Your task to perform on an android device: toggle pop-ups in chrome Image 0: 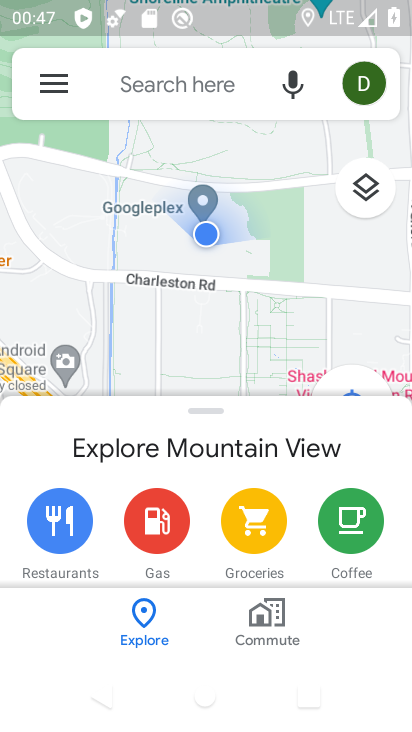
Step 0: press home button
Your task to perform on an android device: toggle pop-ups in chrome Image 1: 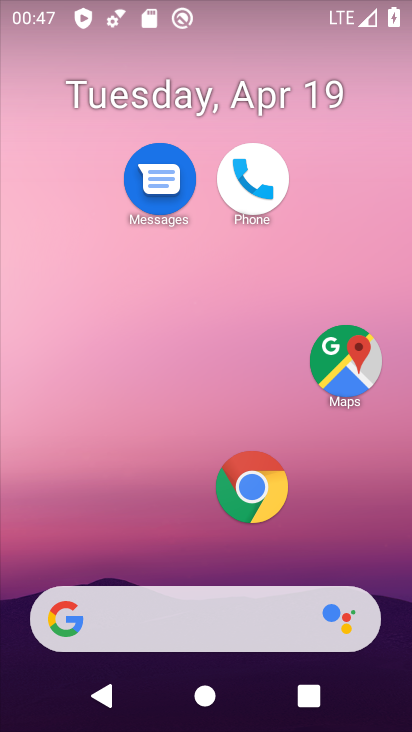
Step 1: click (249, 485)
Your task to perform on an android device: toggle pop-ups in chrome Image 2: 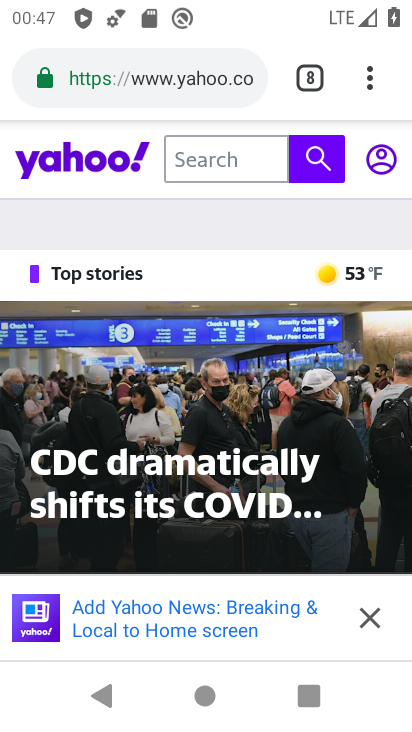
Step 2: click (364, 82)
Your task to perform on an android device: toggle pop-ups in chrome Image 3: 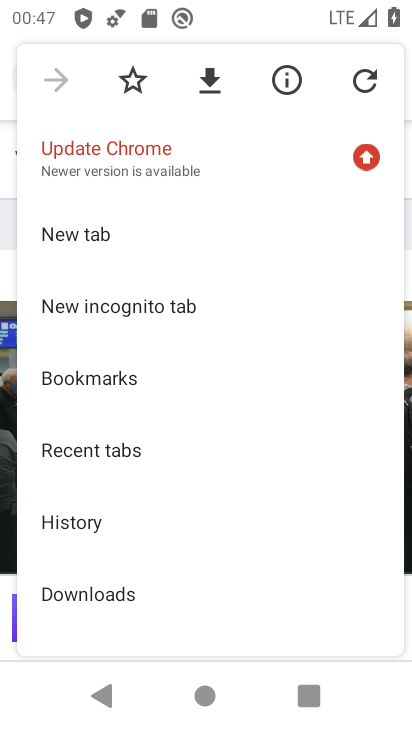
Step 3: drag from (234, 500) to (118, 12)
Your task to perform on an android device: toggle pop-ups in chrome Image 4: 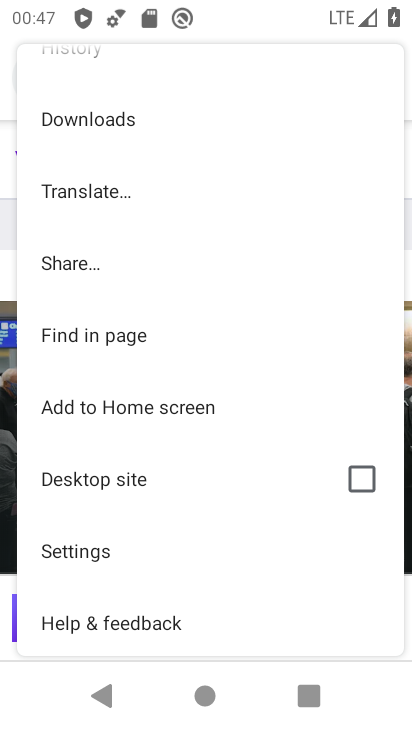
Step 4: click (91, 556)
Your task to perform on an android device: toggle pop-ups in chrome Image 5: 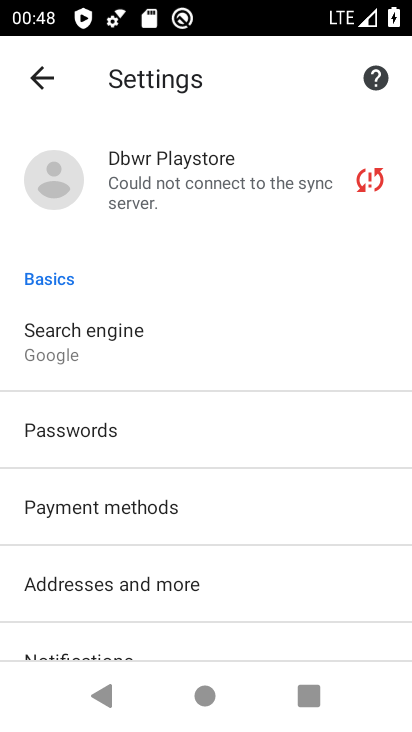
Step 5: drag from (199, 416) to (197, 149)
Your task to perform on an android device: toggle pop-ups in chrome Image 6: 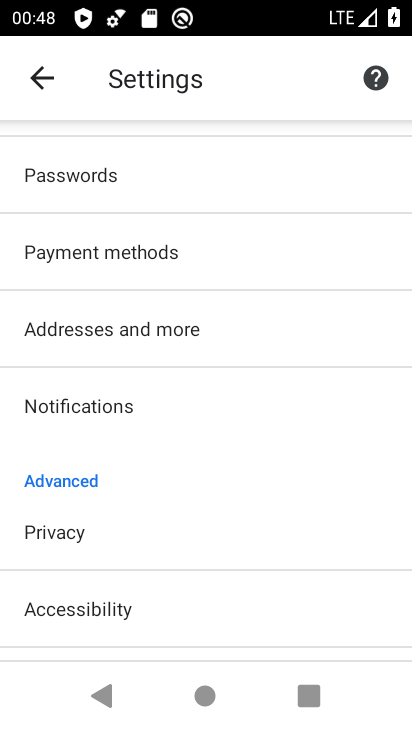
Step 6: drag from (147, 563) to (182, 235)
Your task to perform on an android device: toggle pop-ups in chrome Image 7: 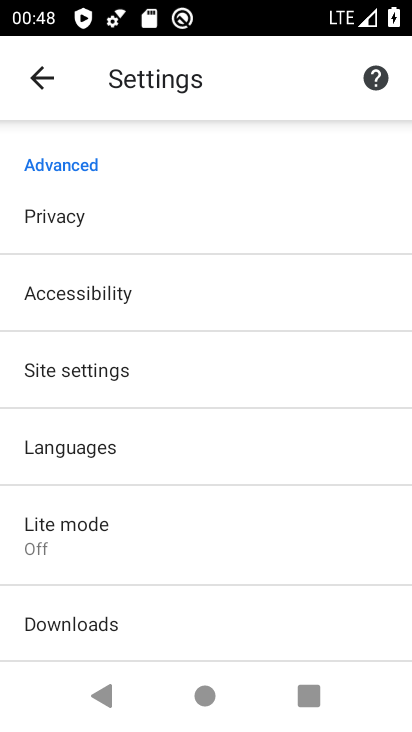
Step 7: click (91, 372)
Your task to perform on an android device: toggle pop-ups in chrome Image 8: 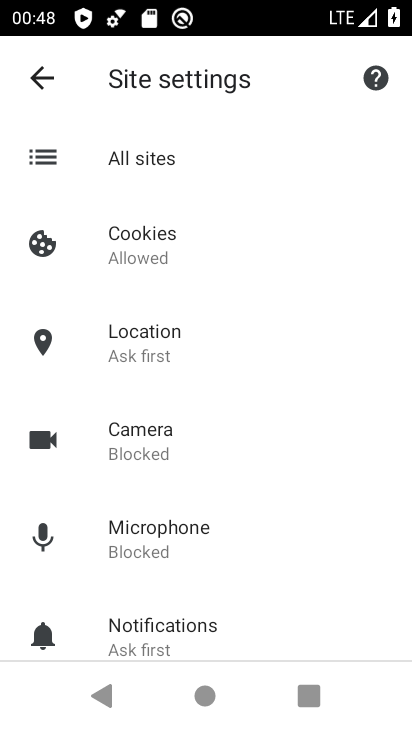
Step 8: drag from (208, 504) to (179, 154)
Your task to perform on an android device: toggle pop-ups in chrome Image 9: 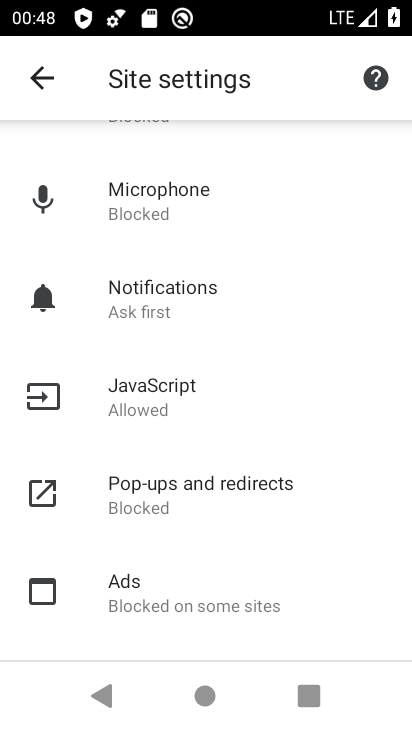
Step 9: click (162, 483)
Your task to perform on an android device: toggle pop-ups in chrome Image 10: 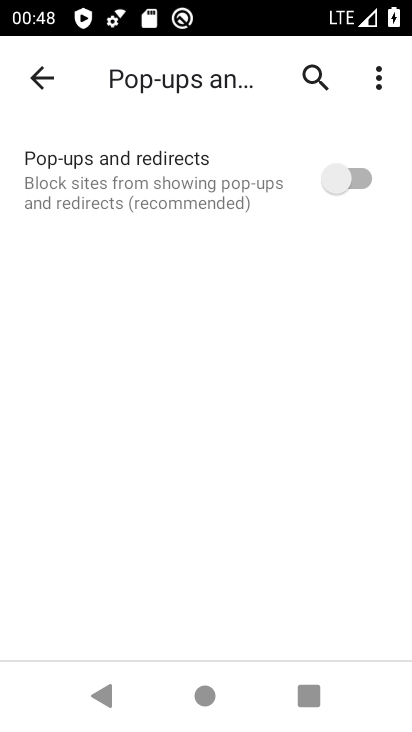
Step 10: click (340, 185)
Your task to perform on an android device: toggle pop-ups in chrome Image 11: 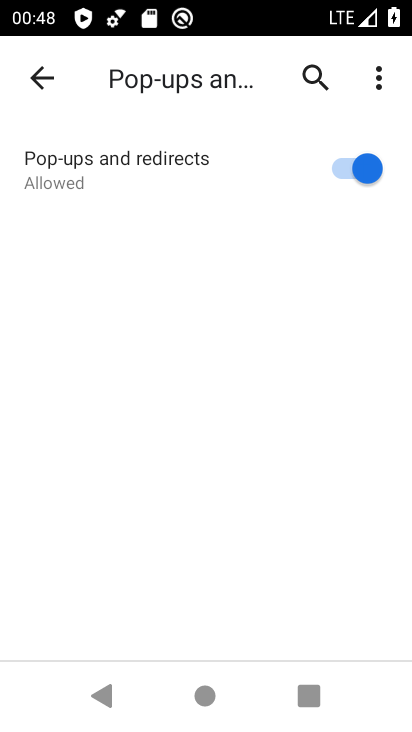
Step 11: task complete